Your task to perform on an android device: Go to Reddit.com Image 0: 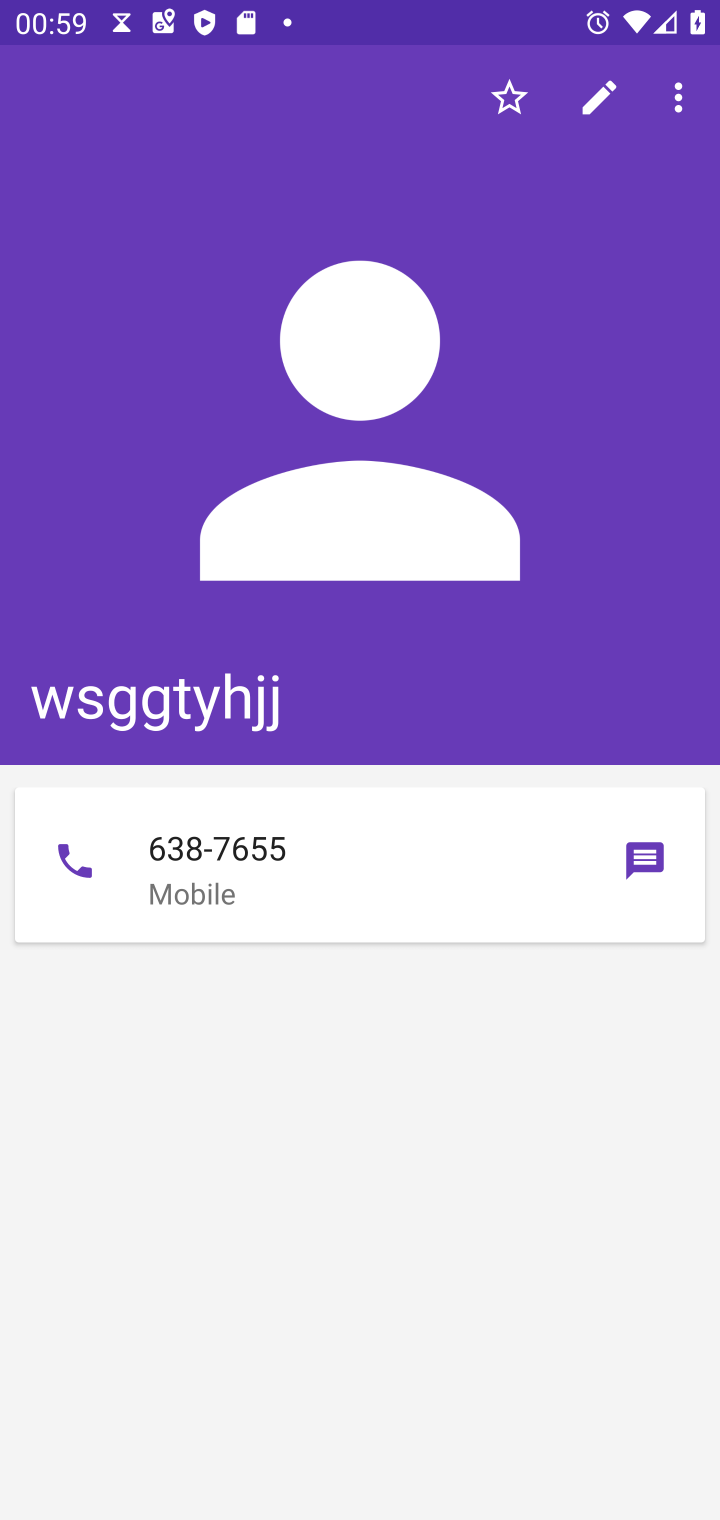
Step 0: press home button
Your task to perform on an android device: Go to Reddit.com Image 1: 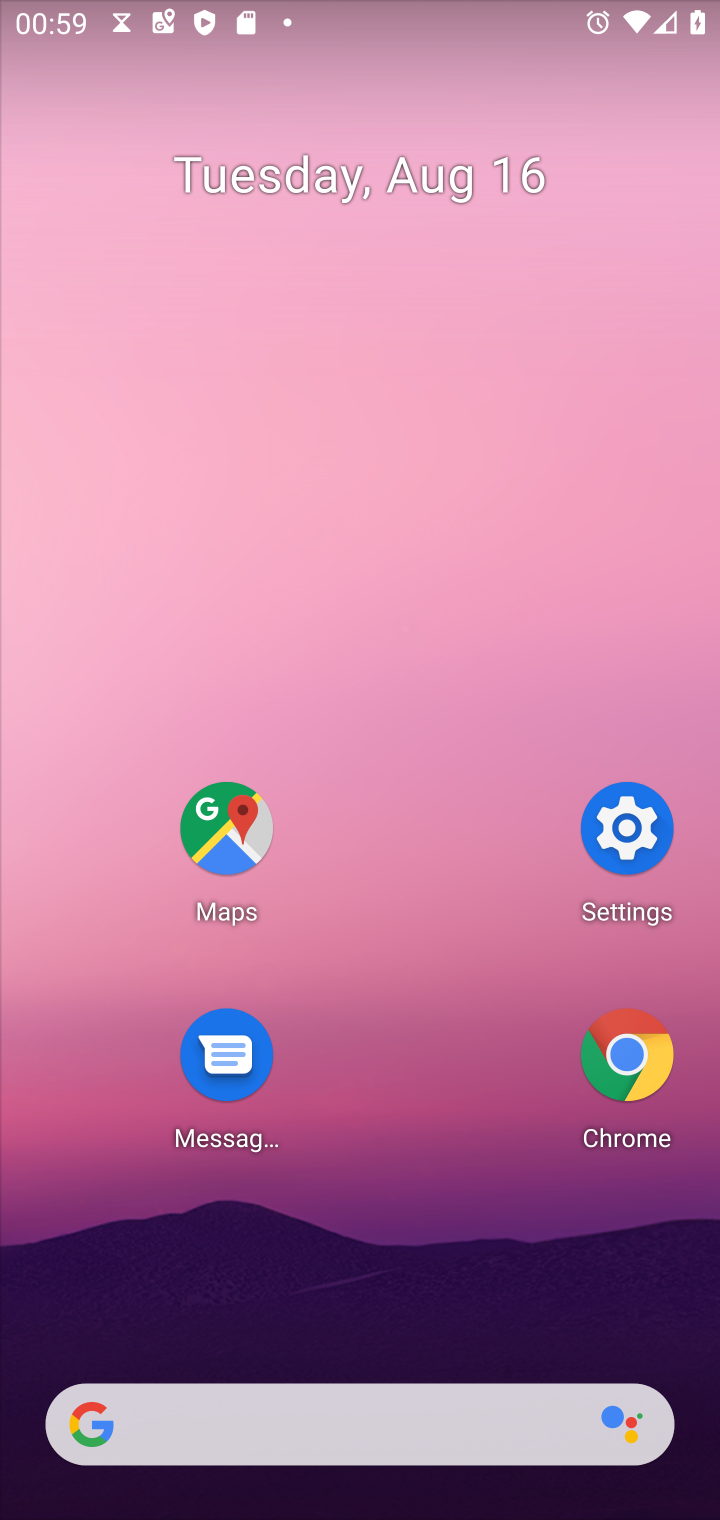
Step 1: click (647, 1062)
Your task to perform on an android device: Go to Reddit.com Image 2: 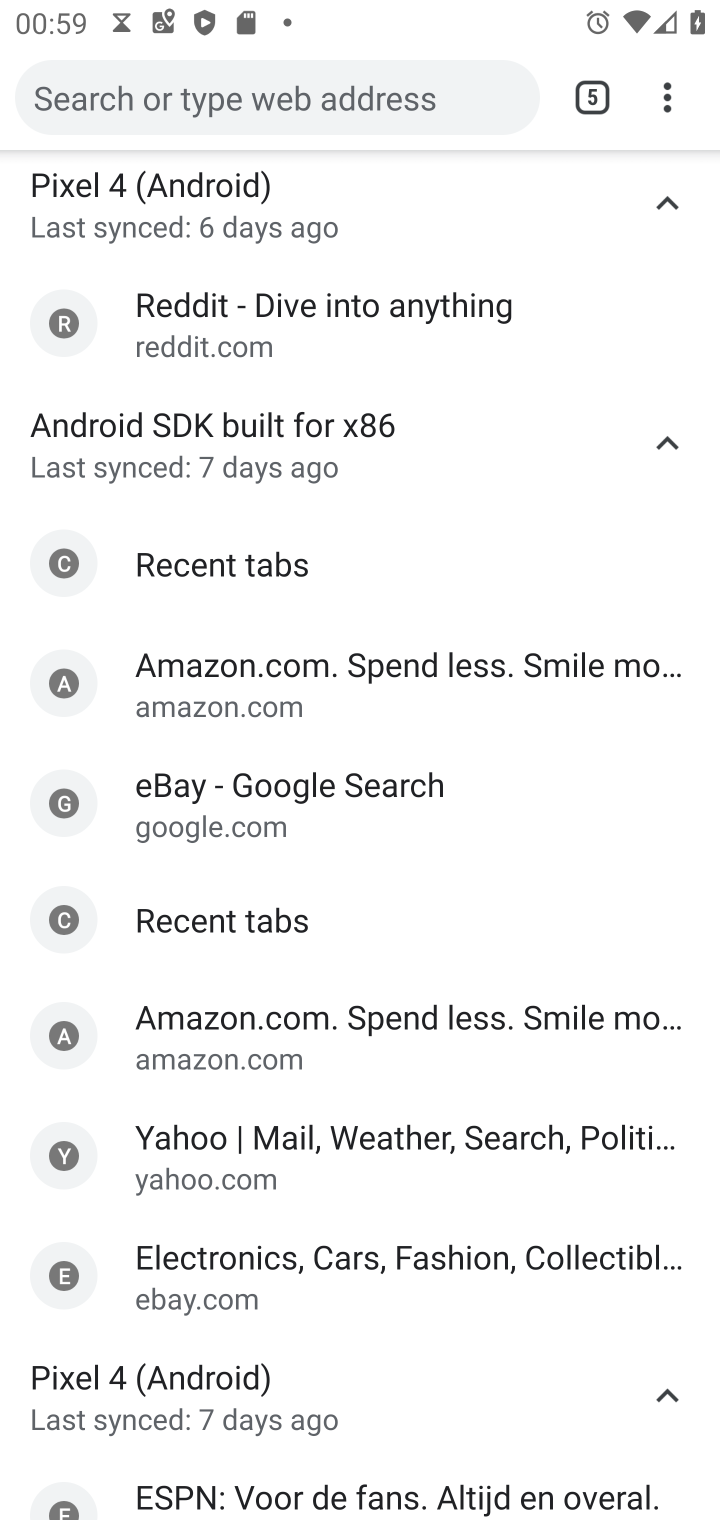
Step 2: drag from (670, 88) to (401, 204)
Your task to perform on an android device: Go to Reddit.com Image 3: 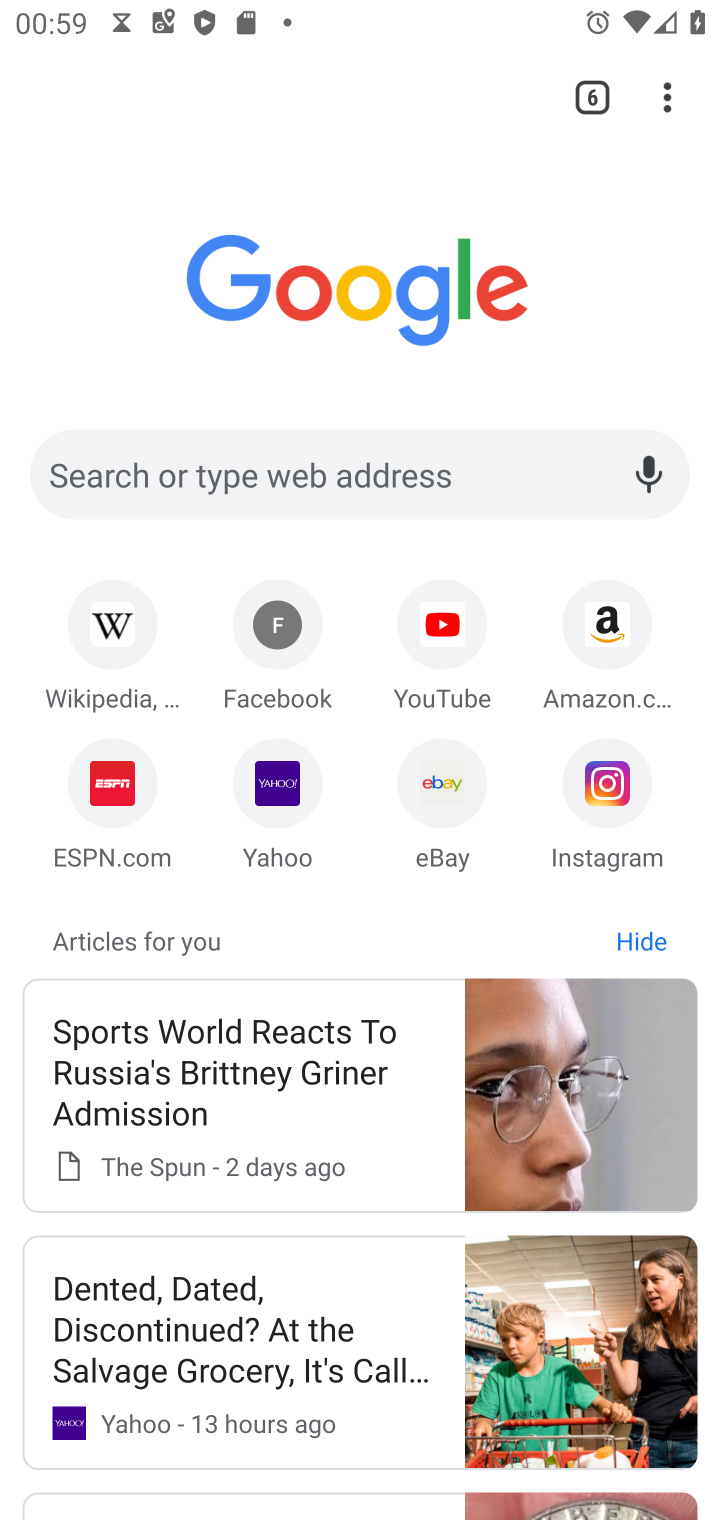
Step 3: click (206, 458)
Your task to perform on an android device: Go to Reddit.com Image 4: 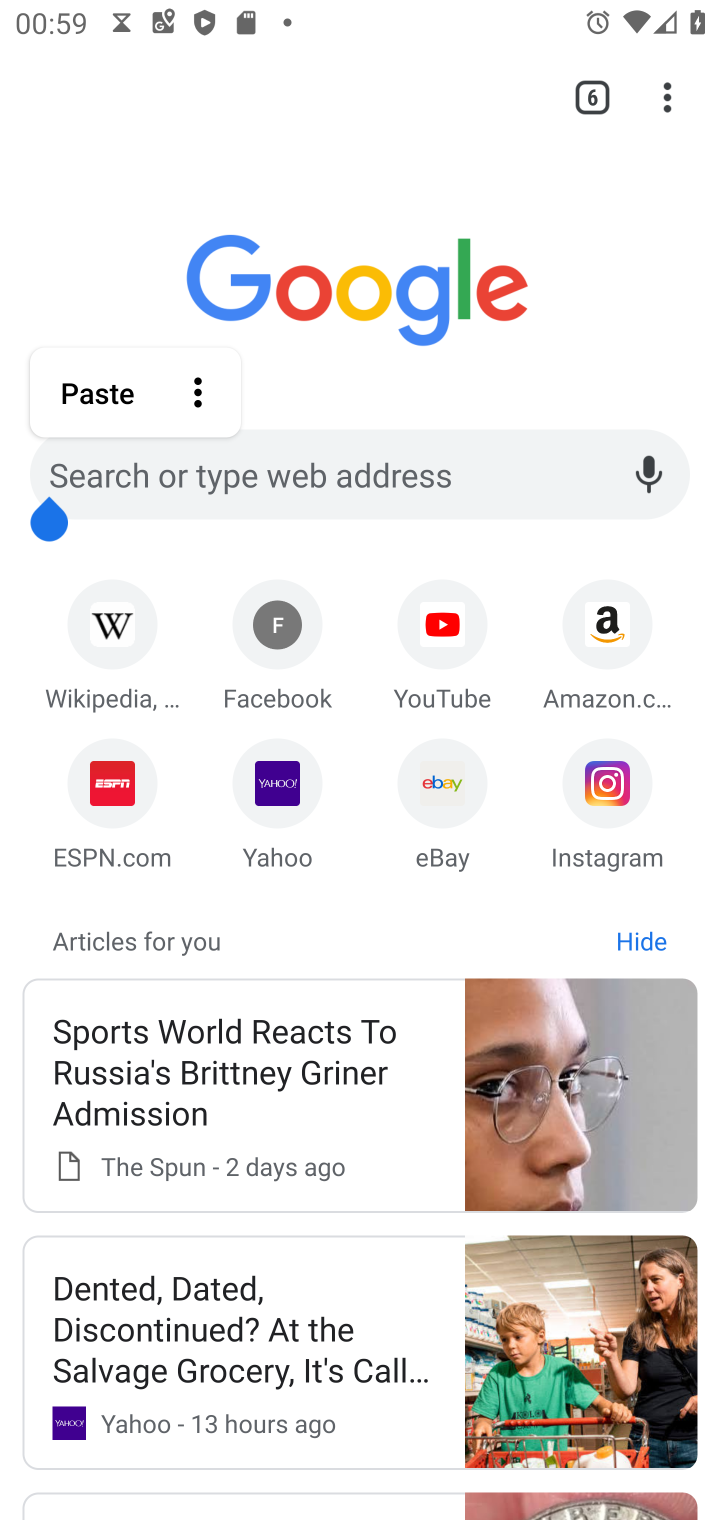
Step 4: click (264, 459)
Your task to perform on an android device: Go to Reddit.com Image 5: 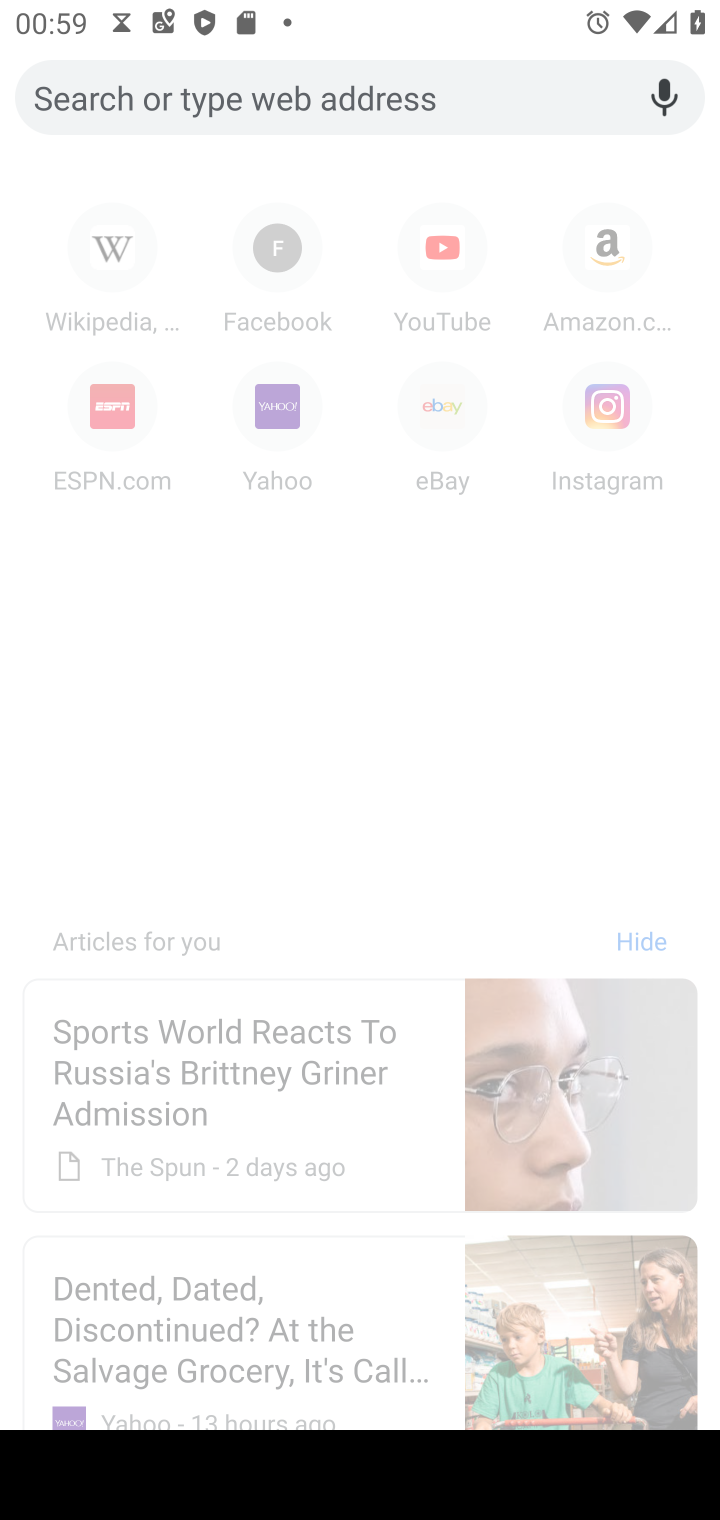
Step 5: type "Reddit.com"
Your task to perform on an android device: Go to Reddit.com Image 6: 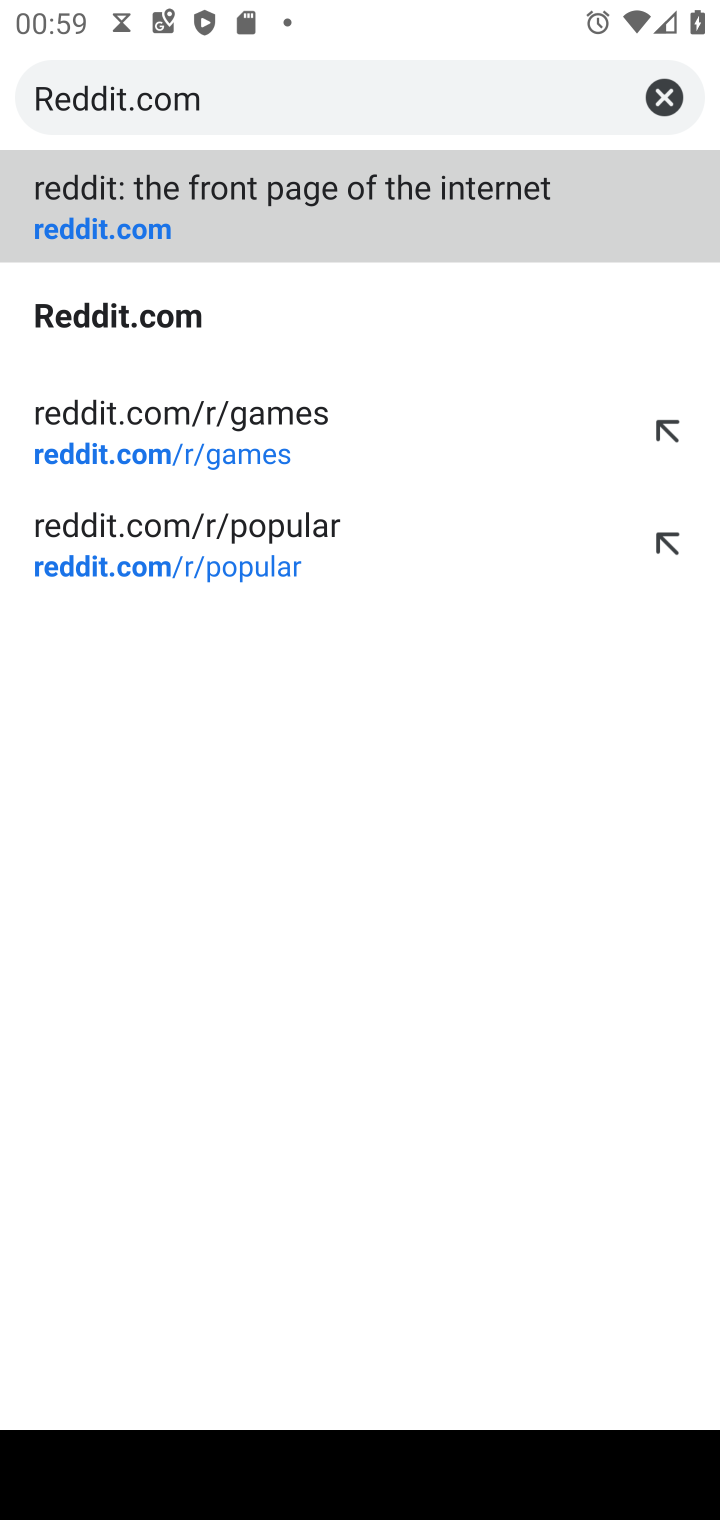
Step 6: click (294, 211)
Your task to perform on an android device: Go to Reddit.com Image 7: 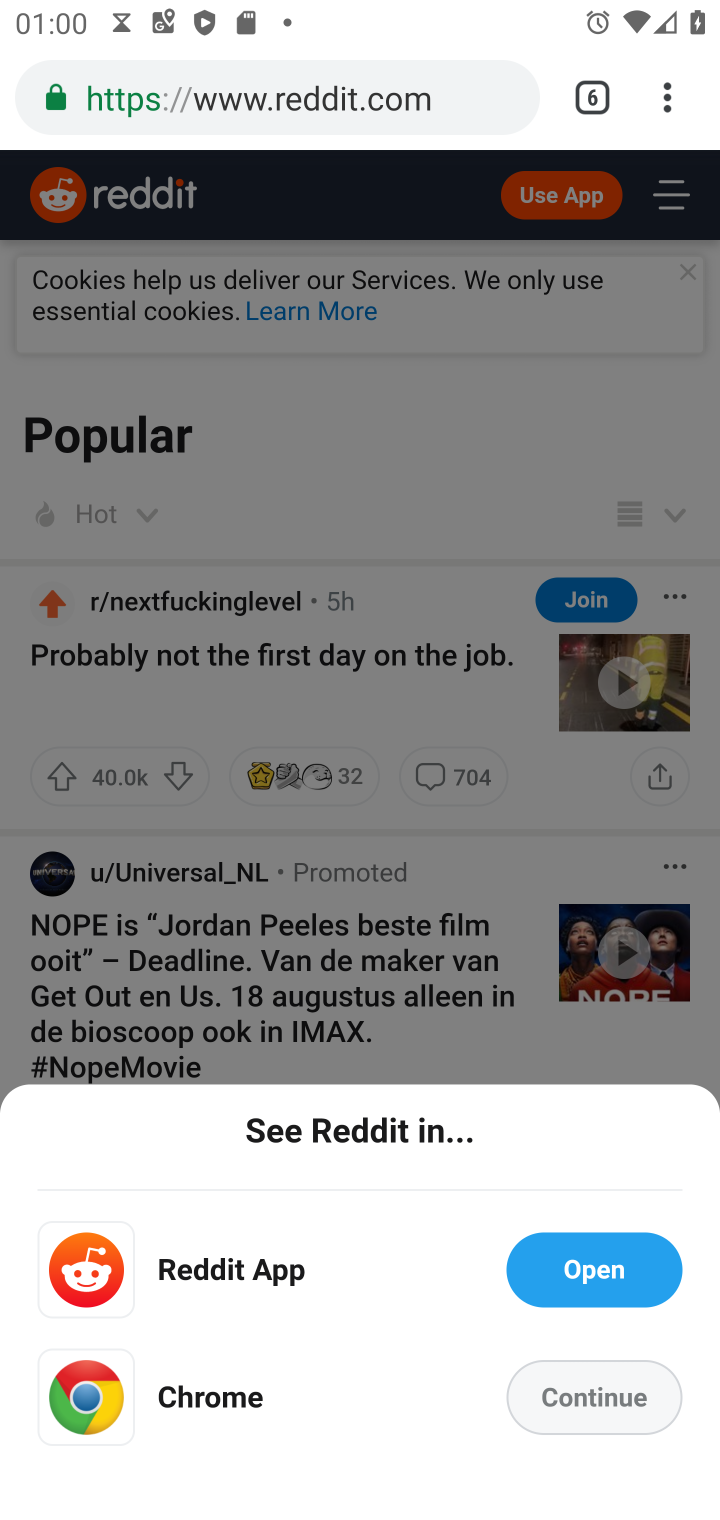
Step 7: task complete